Your task to perform on an android device: toggle notifications settings in the gmail app Image 0: 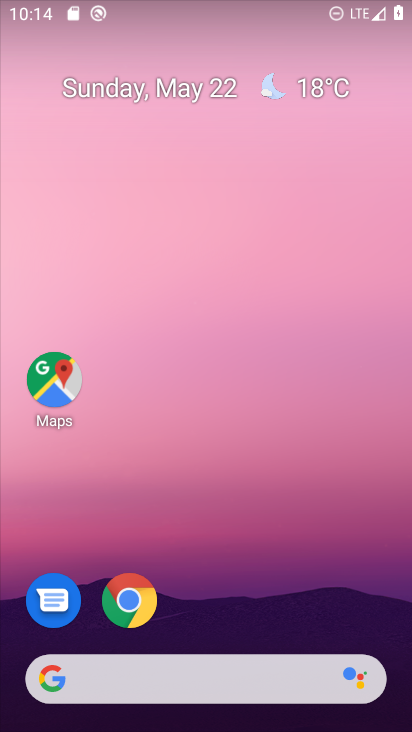
Step 0: drag from (349, 623) to (296, 54)
Your task to perform on an android device: toggle notifications settings in the gmail app Image 1: 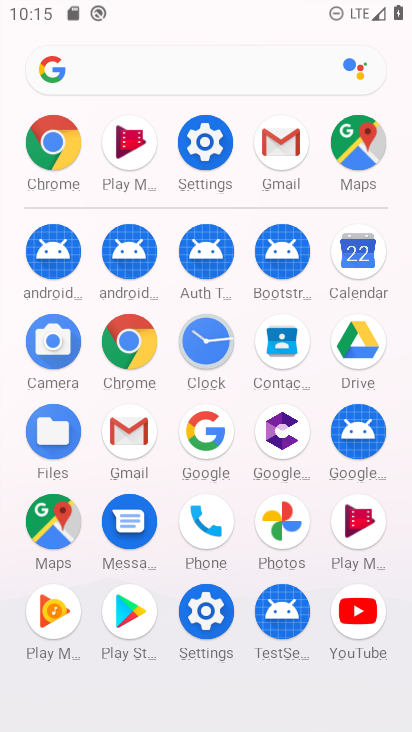
Step 1: click (117, 433)
Your task to perform on an android device: toggle notifications settings in the gmail app Image 2: 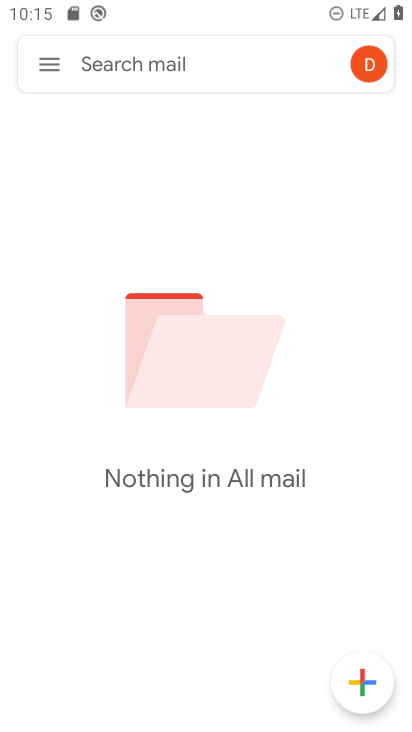
Step 2: click (57, 68)
Your task to perform on an android device: toggle notifications settings in the gmail app Image 3: 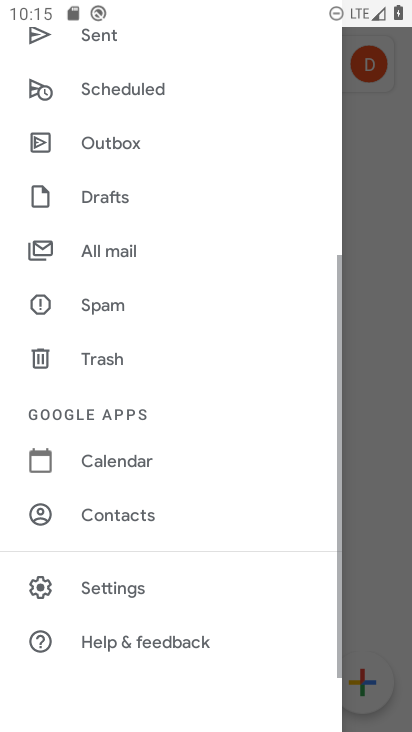
Step 3: click (179, 580)
Your task to perform on an android device: toggle notifications settings in the gmail app Image 4: 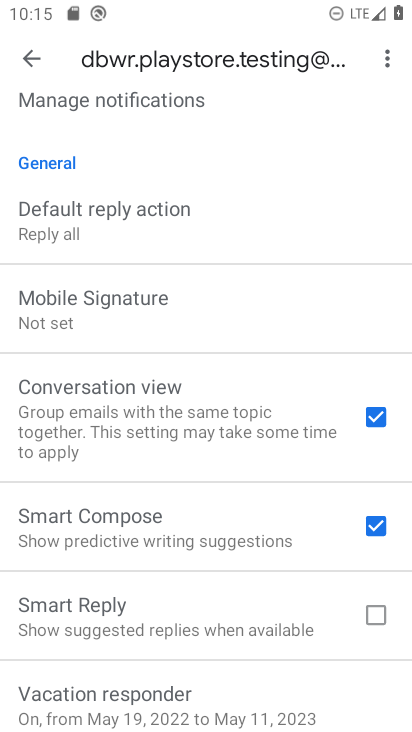
Step 4: drag from (207, 171) to (213, 718)
Your task to perform on an android device: toggle notifications settings in the gmail app Image 5: 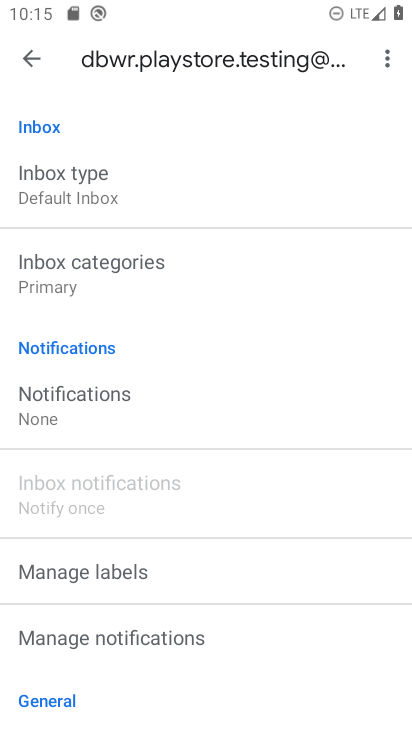
Step 5: click (137, 431)
Your task to perform on an android device: toggle notifications settings in the gmail app Image 6: 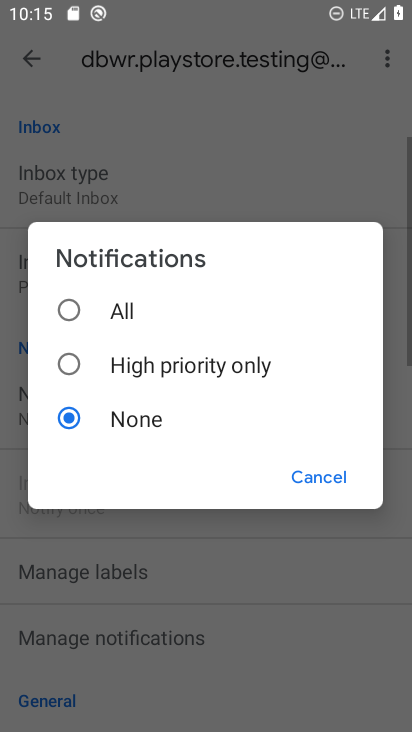
Step 6: click (124, 310)
Your task to perform on an android device: toggle notifications settings in the gmail app Image 7: 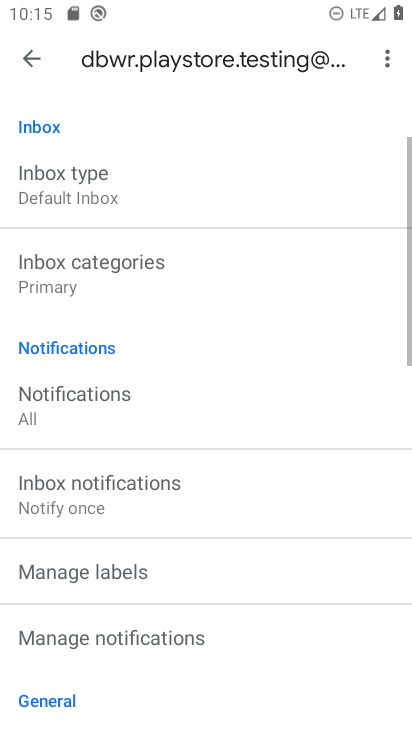
Step 7: task complete